Your task to perform on an android device: turn on bluetooth scan Image 0: 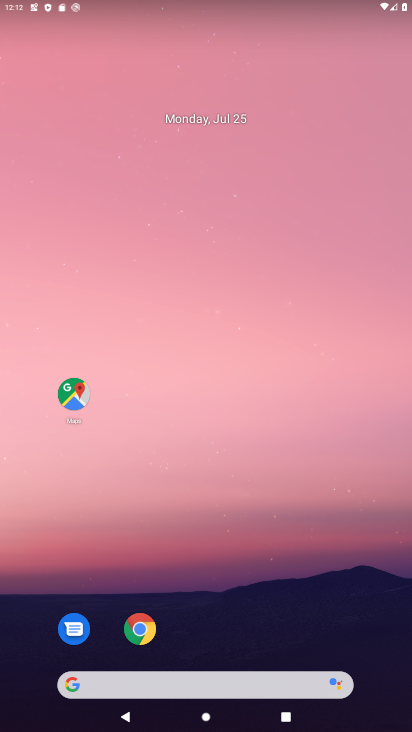
Step 0: drag from (286, 608) to (226, 100)
Your task to perform on an android device: turn on bluetooth scan Image 1: 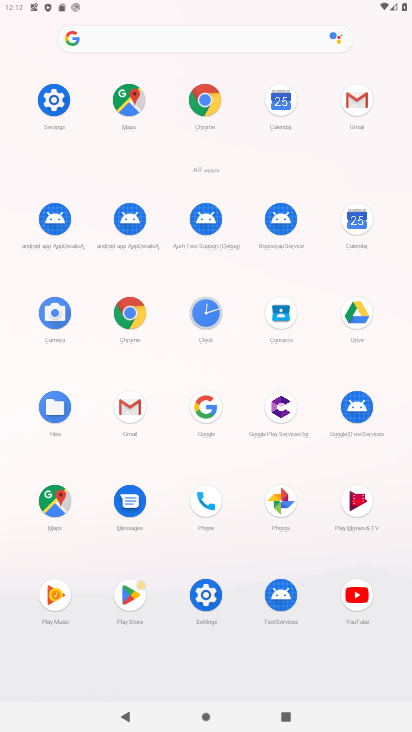
Step 1: click (60, 105)
Your task to perform on an android device: turn on bluetooth scan Image 2: 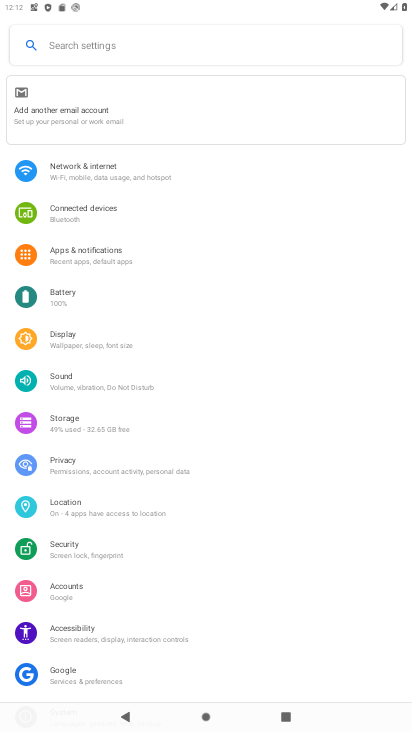
Step 2: click (223, 515)
Your task to perform on an android device: turn on bluetooth scan Image 3: 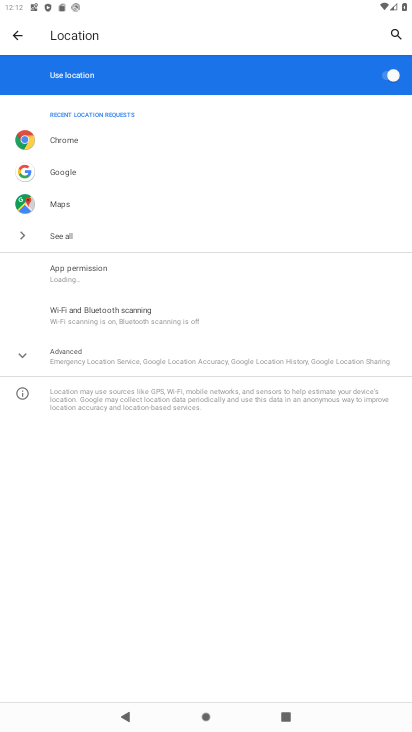
Step 3: click (204, 316)
Your task to perform on an android device: turn on bluetooth scan Image 4: 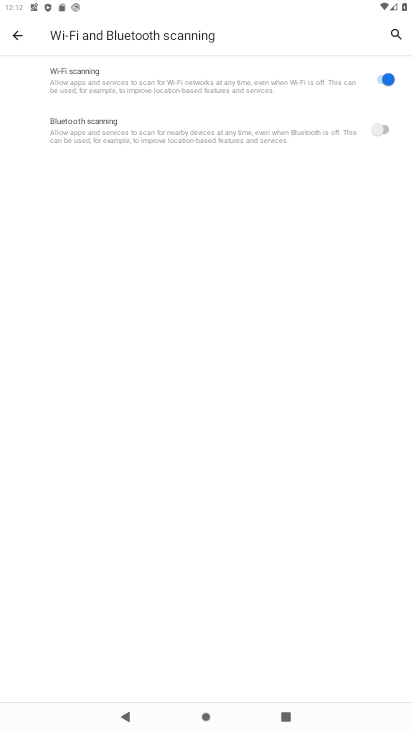
Step 4: click (392, 122)
Your task to perform on an android device: turn on bluetooth scan Image 5: 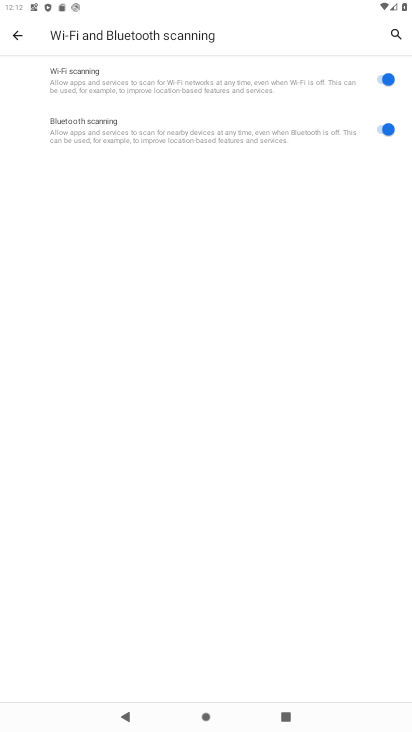
Step 5: task complete